Your task to perform on an android device: Go to sound settings Image 0: 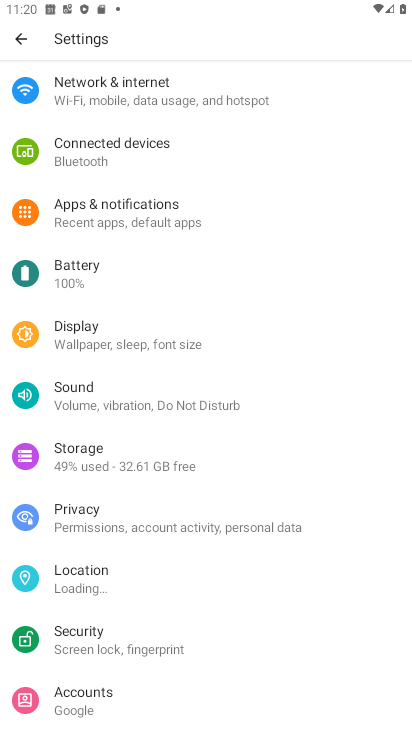
Step 0: press home button
Your task to perform on an android device: Go to sound settings Image 1: 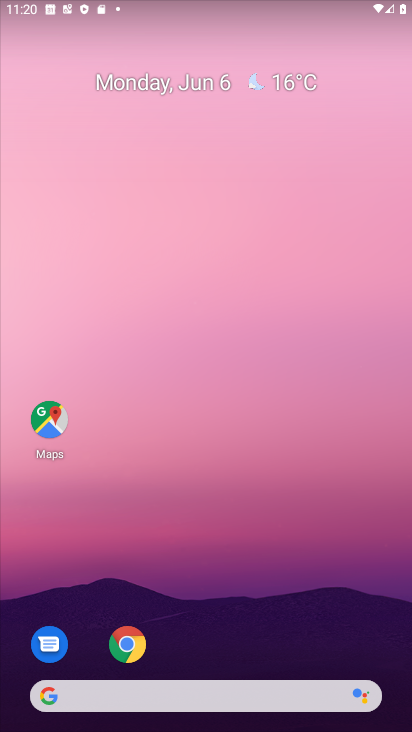
Step 1: drag from (268, 600) to (248, 109)
Your task to perform on an android device: Go to sound settings Image 2: 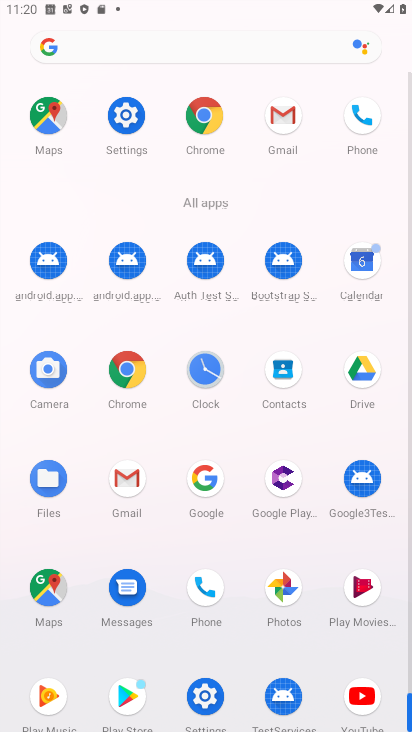
Step 2: drag from (182, 210) to (178, 76)
Your task to perform on an android device: Go to sound settings Image 3: 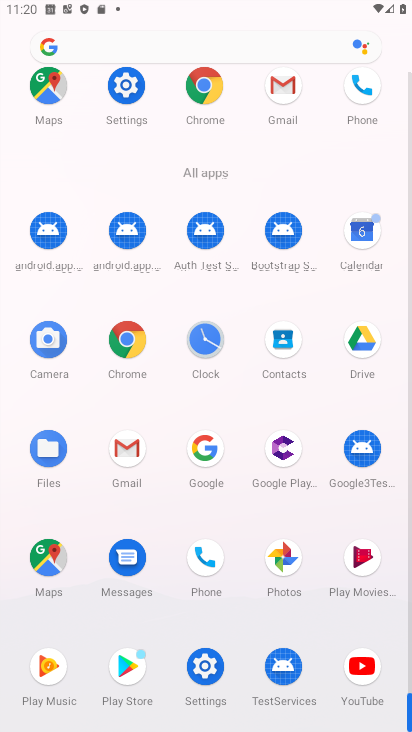
Step 3: click (199, 673)
Your task to perform on an android device: Go to sound settings Image 4: 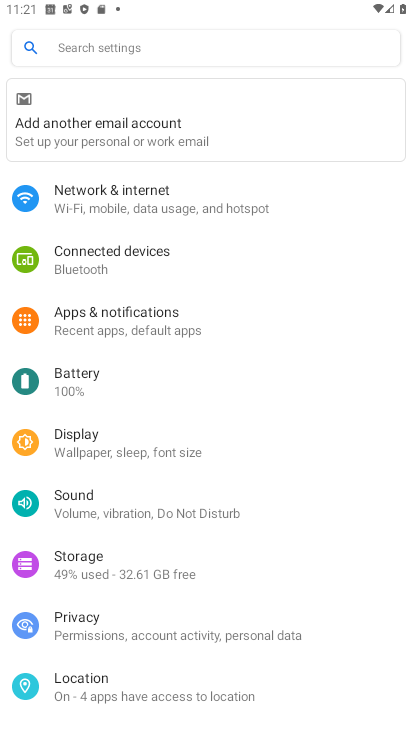
Step 4: click (156, 506)
Your task to perform on an android device: Go to sound settings Image 5: 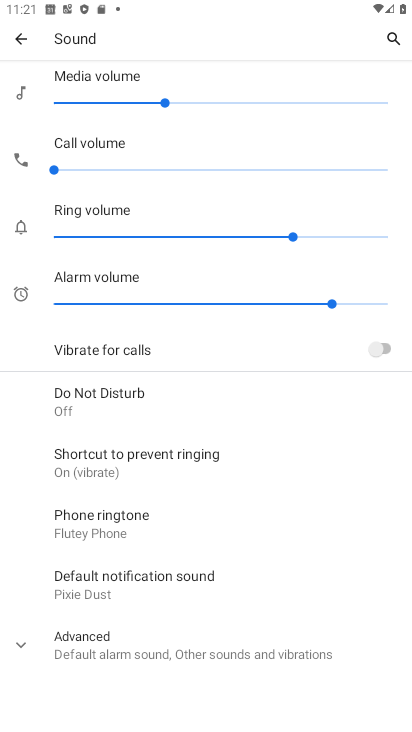
Step 5: task complete